Your task to perform on an android device: Open notification settings Image 0: 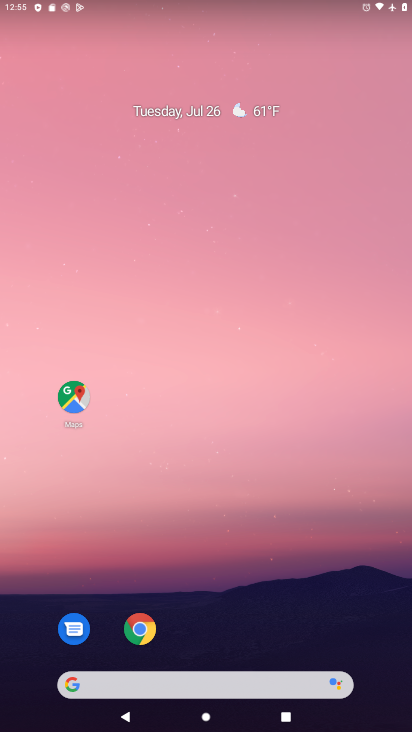
Step 0: drag from (191, 666) to (167, 126)
Your task to perform on an android device: Open notification settings Image 1: 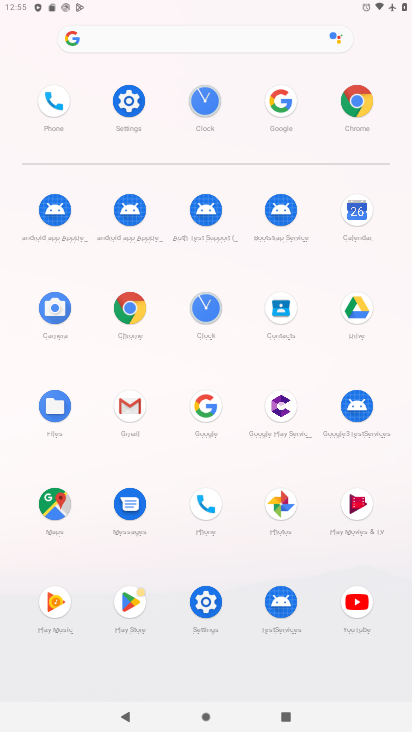
Step 1: click (210, 609)
Your task to perform on an android device: Open notification settings Image 2: 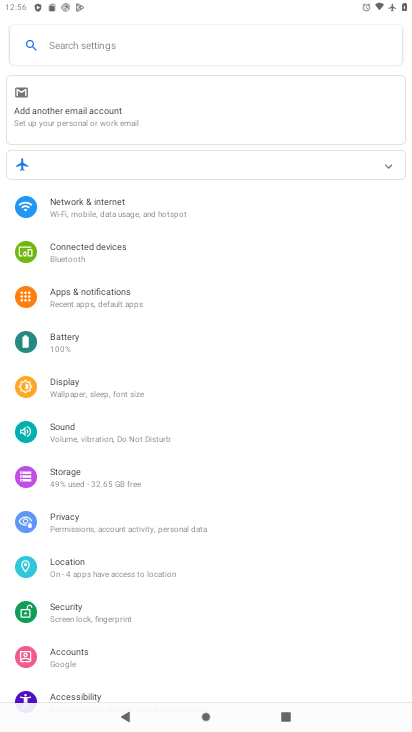
Step 2: click (114, 292)
Your task to perform on an android device: Open notification settings Image 3: 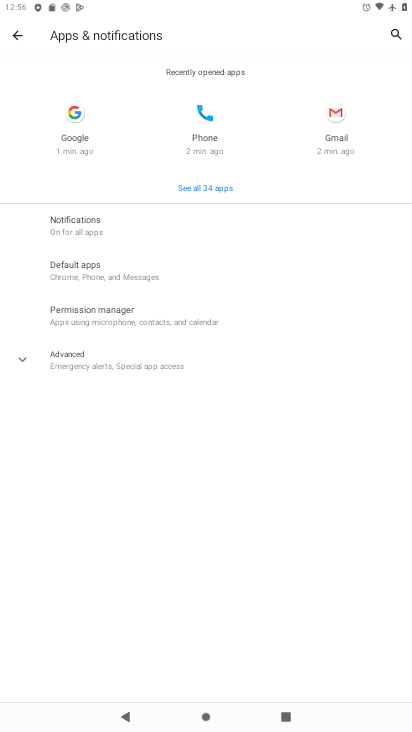
Step 3: click (86, 217)
Your task to perform on an android device: Open notification settings Image 4: 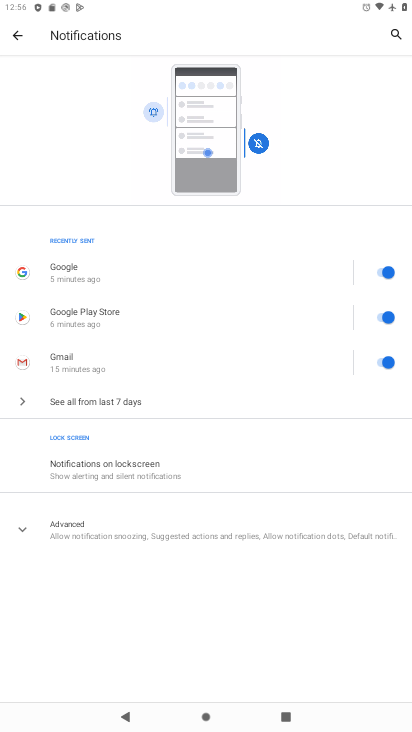
Step 4: task complete